Your task to perform on an android device: see creations saved in the google photos Image 0: 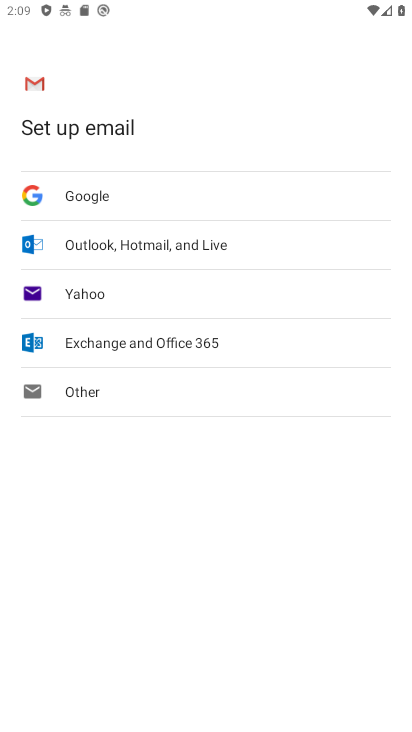
Step 0: drag from (335, 716) to (327, 185)
Your task to perform on an android device: see creations saved in the google photos Image 1: 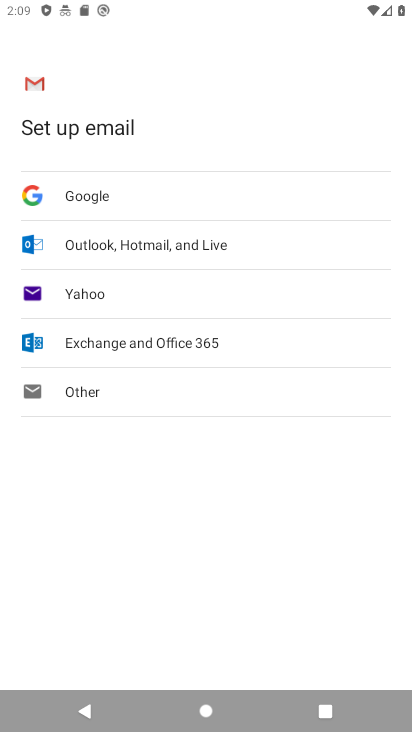
Step 1: press back button
Your task to perform on an android device: see creations saved in the google photos Image 2: 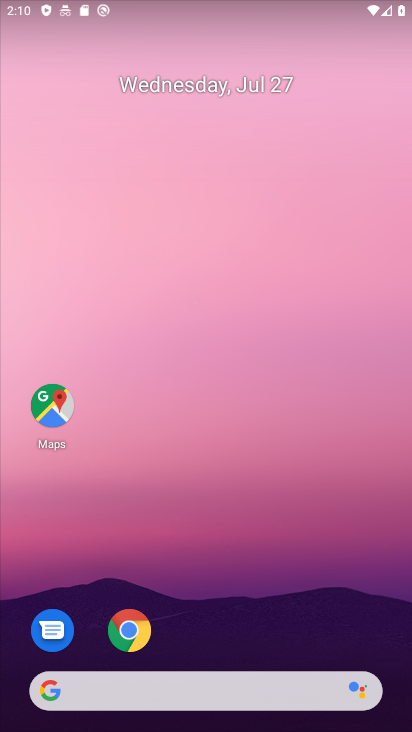
Step 2: drag from (246, 698) to (191, 262)
Your task to perform on an android device: see creations saved in the google photos Image 3: 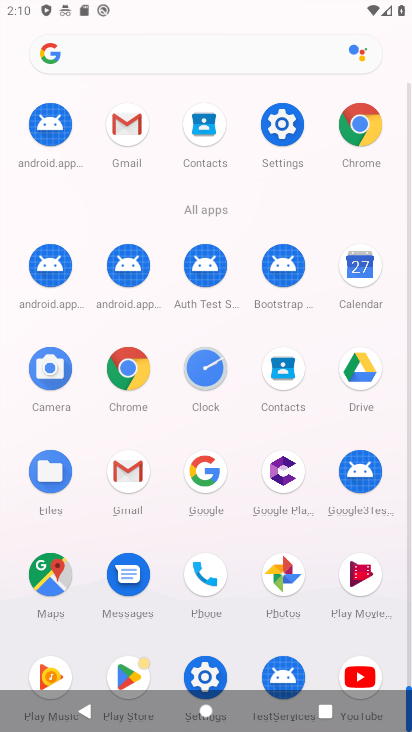
Step 3: click (282, 570)
Your task to perform on an android device: see creations saved in the google photos Image 4: 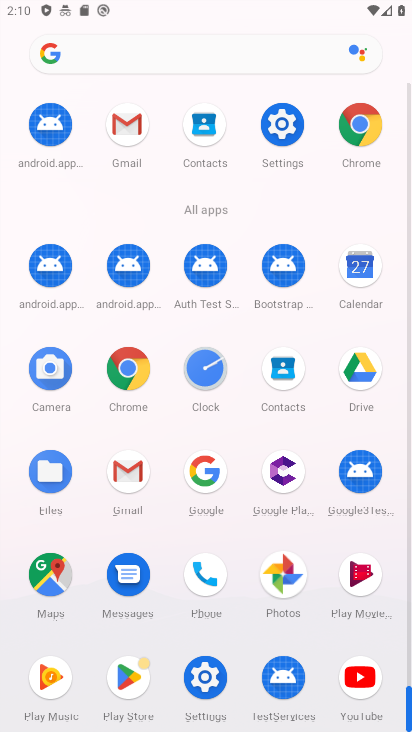
Step 4: click (287, 568)
Your task to perform on an android device: see creations saved in the google photos Image 5: 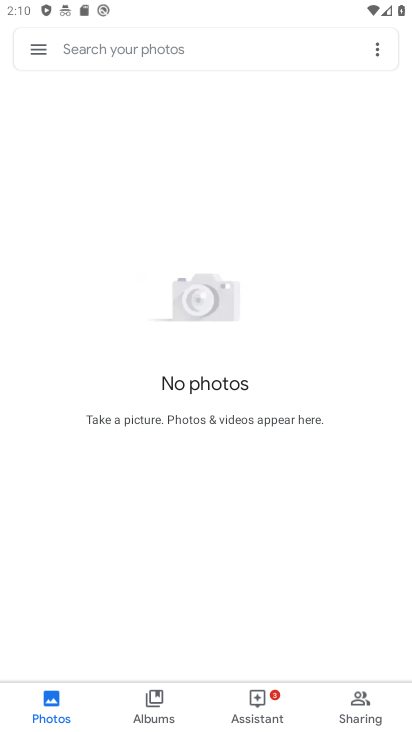
Step 5: click (60, 699)
Your task to perform on an android device: see creations saved in the google photos Image 6: 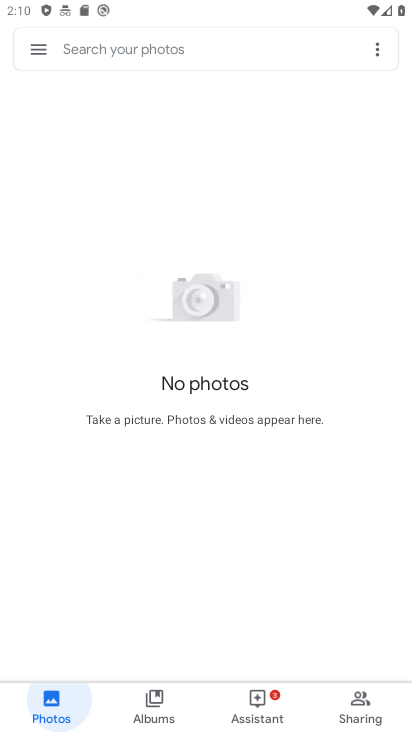
Step 6: click (60, 699)
Your task to perform on an android device: see creations saved in the google photos Image 7: 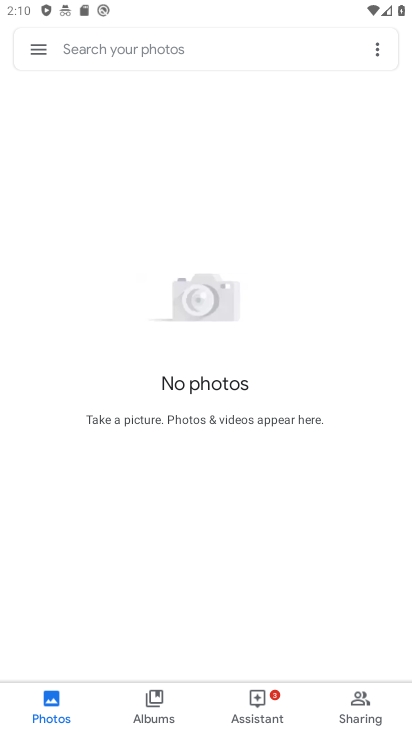
Step 7: click (76, 683)
Your task to perform on an android device: see creations saved in the google photos Image 8: 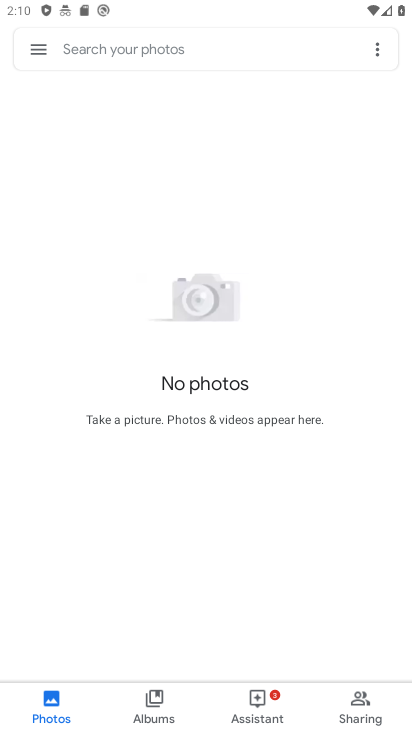
Step 8: click (79, 698)
Your task to perform on an android device: see creations saved in the google photos Image 9: 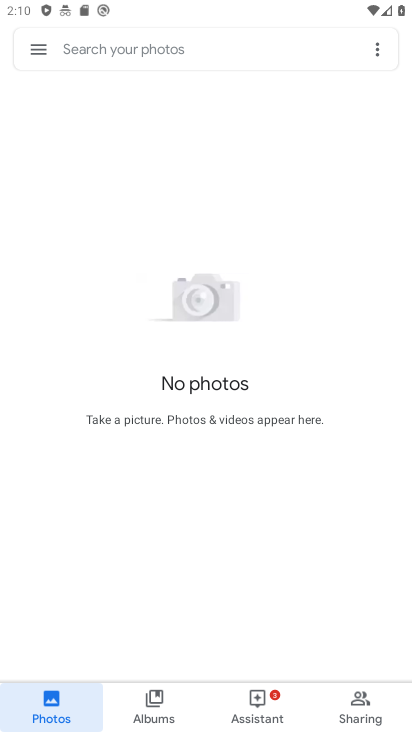
Step 9: click (78, 700)
Your task to perform on an android device: see creations saved in the google photos Image 10: 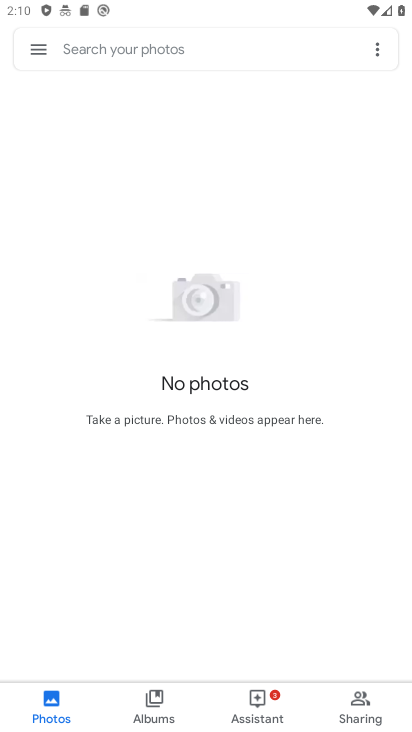
Step 10: click (75, 701)
Your task to perform on an android device: see creations saved in the google photos Image 11: 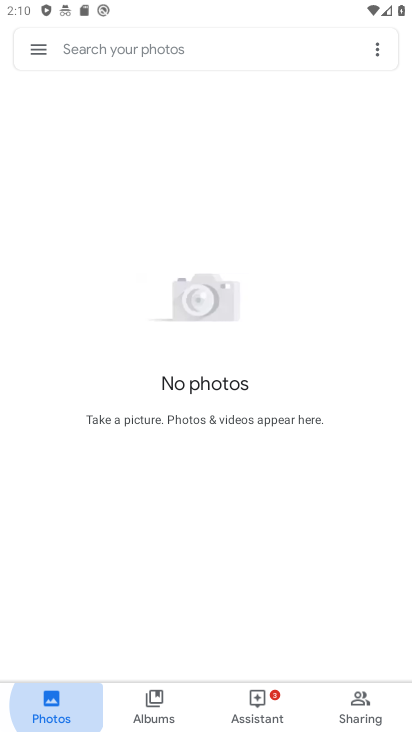
Step 11: click (104, 677)
Your task to perform on an android device: see creations saved in the google photos Image 12: 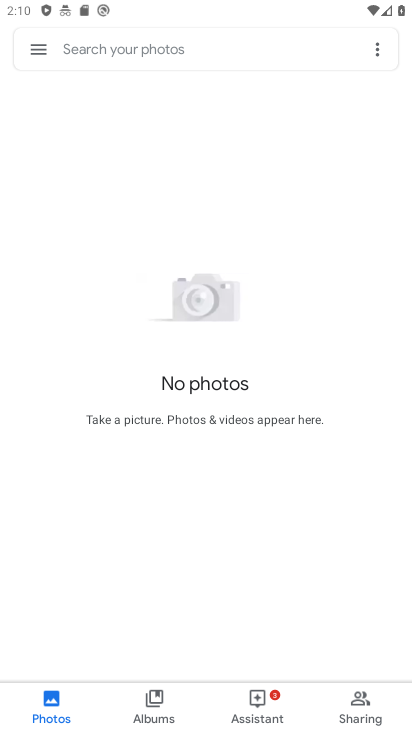
Step 12: task complete